Your task to perform on an android device: Empty the shopping cart on newegg.com. Add "beats solo 3" to the cart on newegg.com Image 0: 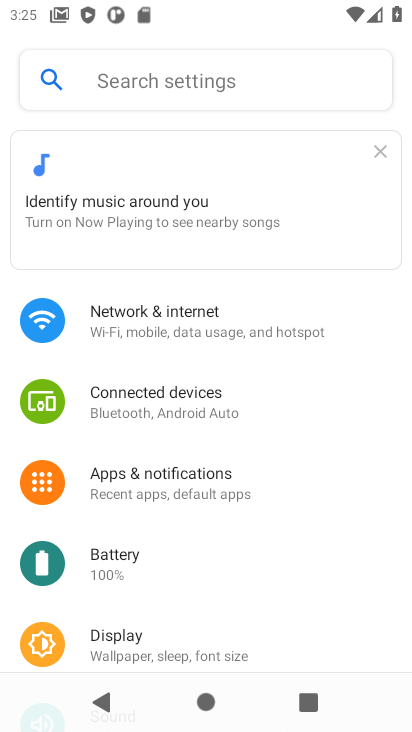
Step 0: press home button
Your task to perform on an android device: Empty the shopping cart on newegg.com. Add "beats solo 3" to the cart on newegg.com Image 1: 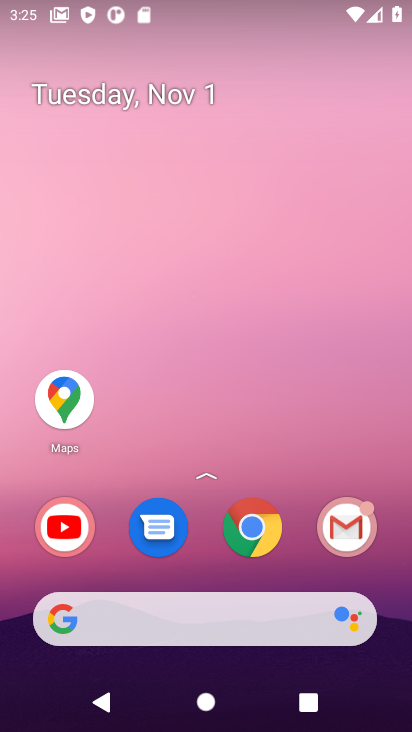
Step 1: click (202, 615)
Your task to perform on an android device: Empty the shopping cart on newegg.com. Add "beats solo 3" to the cart on newegg.com Image 2: 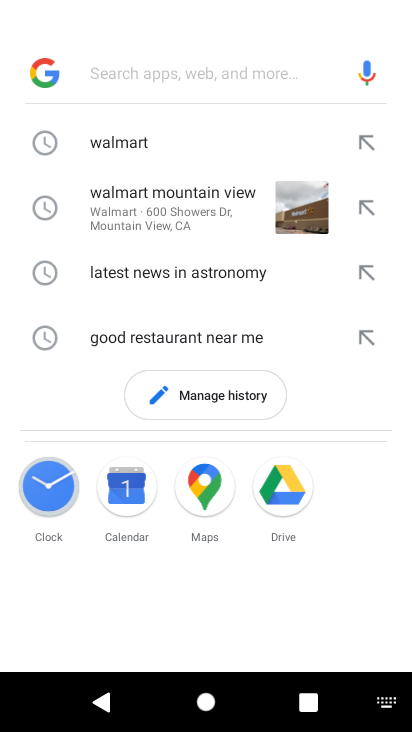
Step 2: type "newegg.com"
Your task to perform on an android device: Empty the shopping cart on newegg.com. Add "beats solo 3" to the cart on newegg.com Image 3: 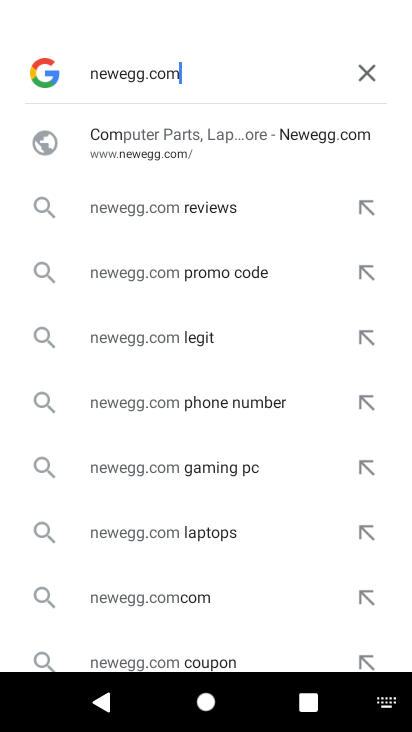
Step 3: click (215, 133)
Your task to perform on an android device: Empty the shopping cart on newegg.com. Add "beats solo 3" to the cart on newegg.com Image 4: 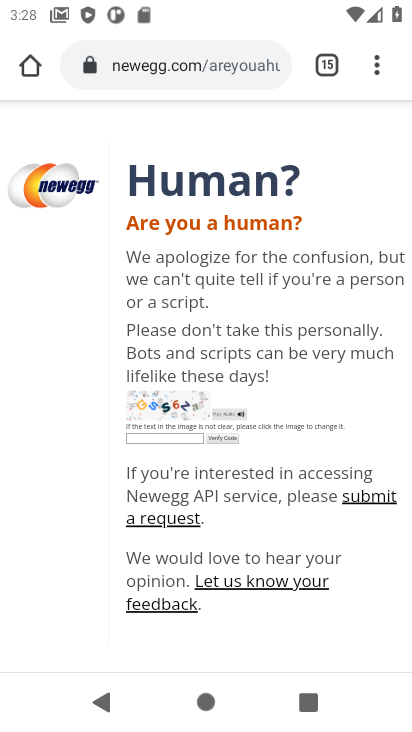
Step 4: click (180, 439)
Your task to perform on an android device: Empty the shopping cart on newegg.com. Add "beats solo 3" to the cart on newegg.com Image 5: 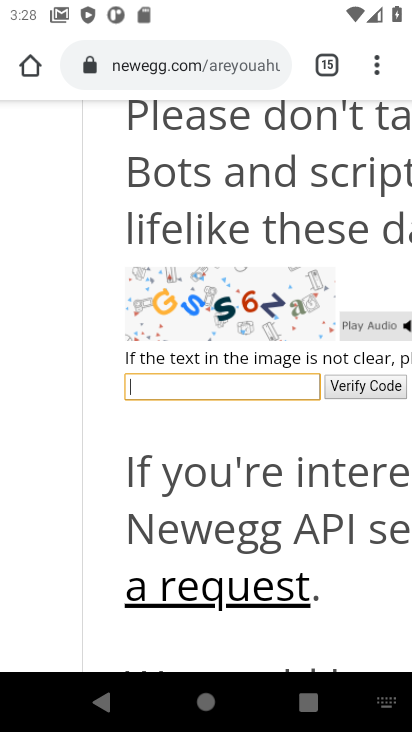
Step 5: drag from (295, 275) to (231, 341)
Your task to perform on an android device: Empty the shopping cart on newegg.com. Add "beats solo 3" to the cart on newegg.com Image 6: 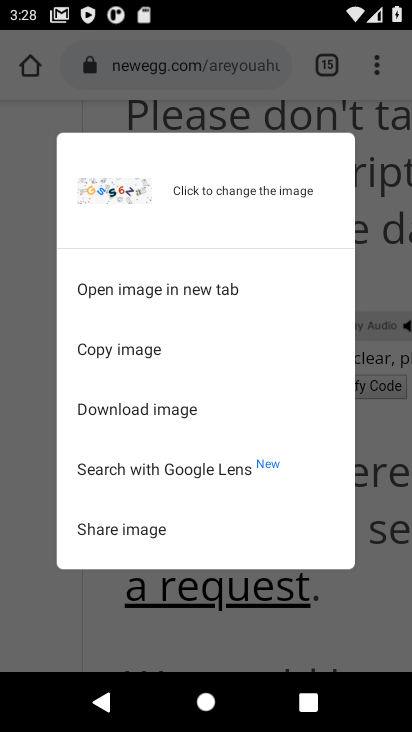
Step 6: click (377, 418)
Your task to perform on an android device: Empty the shopping cart on newegg.com. Add "beats solo 3" to the cart on newegg.com Image 7: 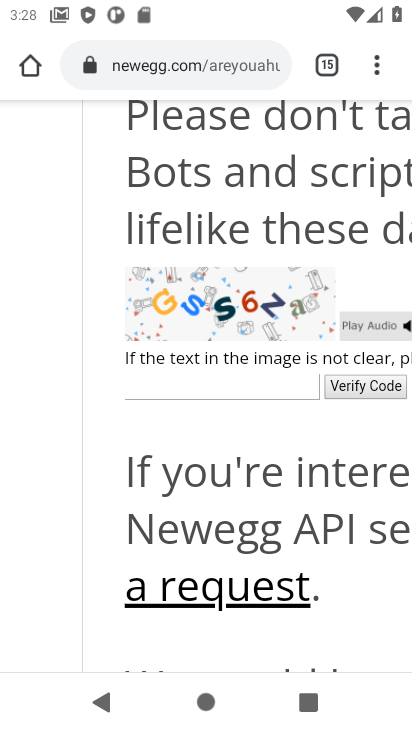
Step 7: click (262, 383)
Your task to perform on an android device: Empty the shopping cart on newegg.com. Add "beats solo 3" to the cart on newegg.com Image 8: 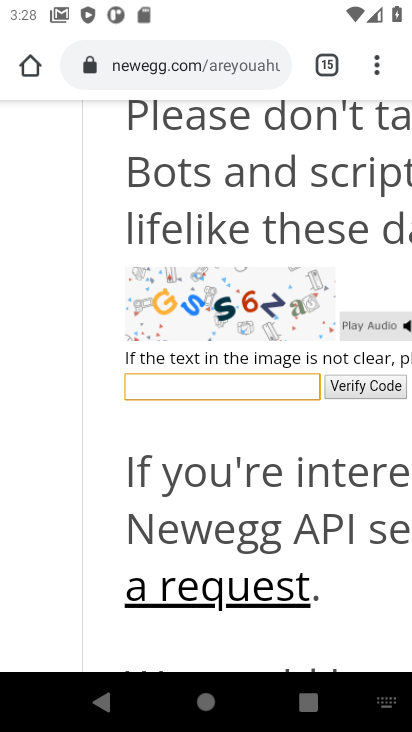
Step 8: type "GSS6"
Your task to perform on an android device: Empty the shopping cart on newegg.com. Add "beats solo 3" to the cart on newegg.com Image 9: 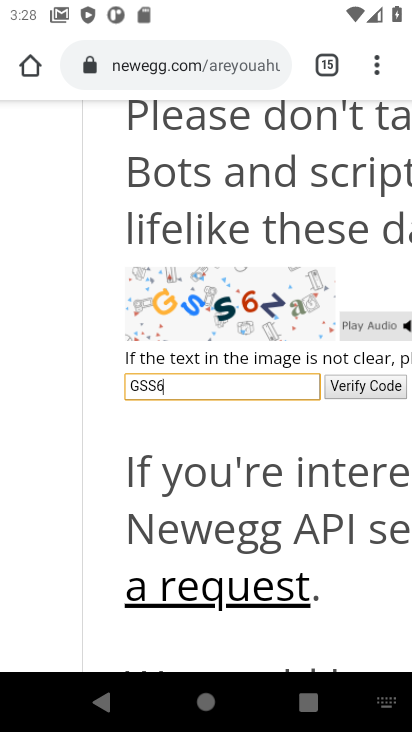
Step 9: type "Z"
Your task to perform on an android device: Empty the shopping cart on newegg.com. Add "beats solo 3" to the cart on newegg.com Image 10: 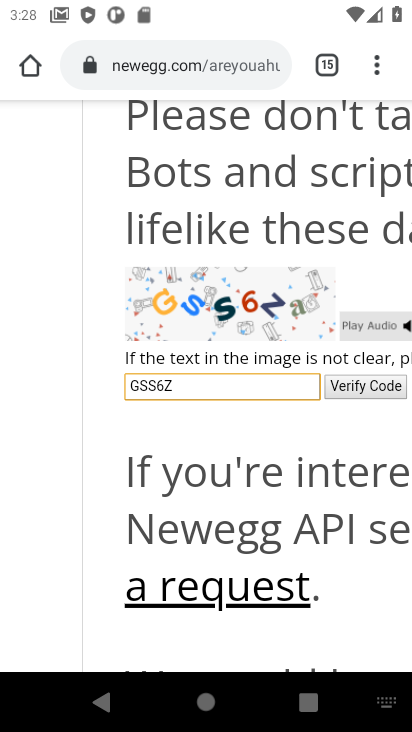
Step 10: click (373, 396)
Your task to perform on an android device: Empty the shopping cart on newegg.com. Add "beats solo 3" to the cart on newegg.com Image 11: 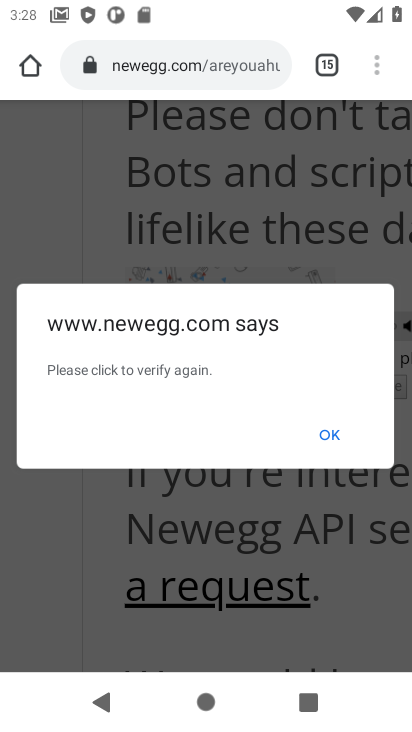
Step 11: click (327, 433)
Your task to perform on an android device: Empty the shopping cart on newegg.com. Add "beats solo 3" to the cart on newegg.com Image 12: 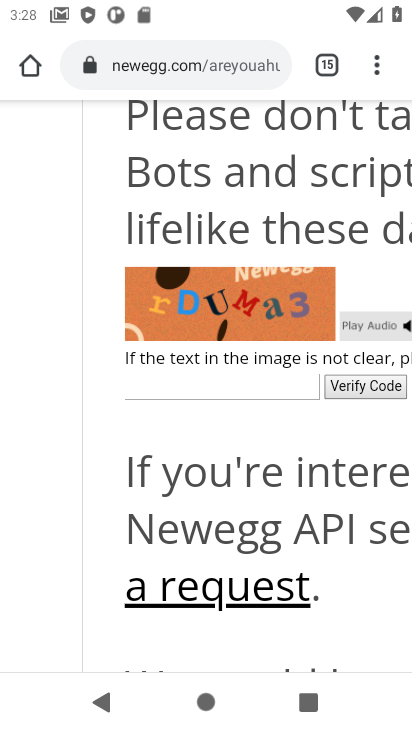
Step 12: click (186, 382)
Your task to perform on an android device: Empty the shopping cart on newegg.com. Add "beats solo 3" to the cart on newegg.com Image 13: 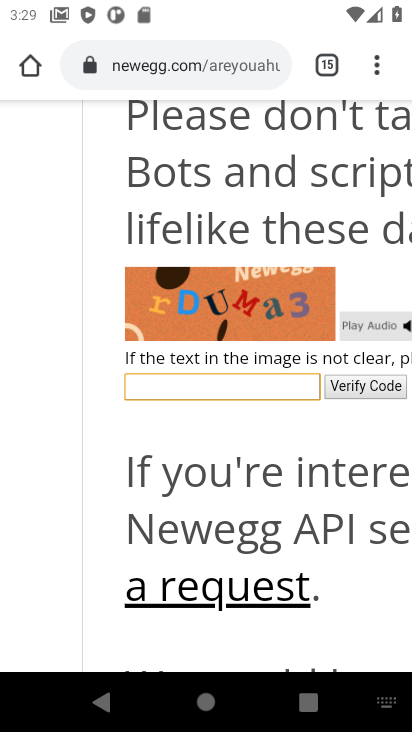
Step 13: type "rDUMa3"
Your task to perform on an android device: Empty the shopping cart on newegg.com. Add "beats solo 3" to the cart on newegg.com Image 14: 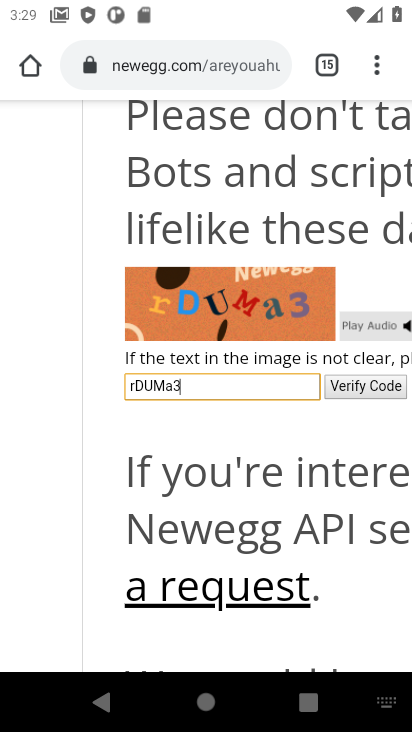
Step 14: click (352, 374)
Your task to perform on an android device: Empty the shopping cart on newegg.com. Add "beats solo 3" to the cart on newegg.com Image 15: 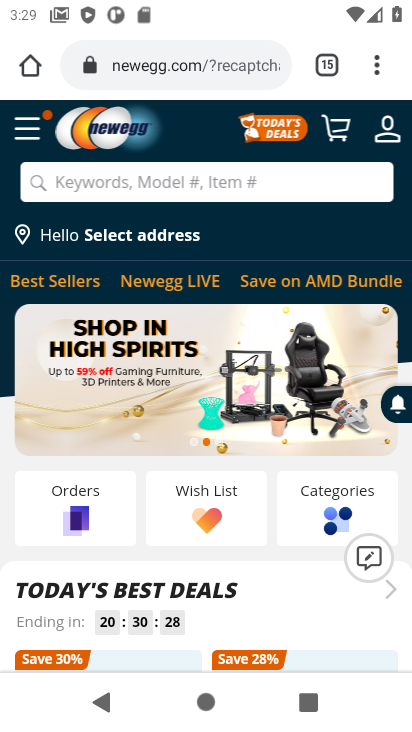
Step 15: drag from (412, 461) to (376, 539)
Your task to perform on an android device: Empty the shopping cart on newegg.com. Add "beats solo 3" to the cart on newegg.com Image 16: 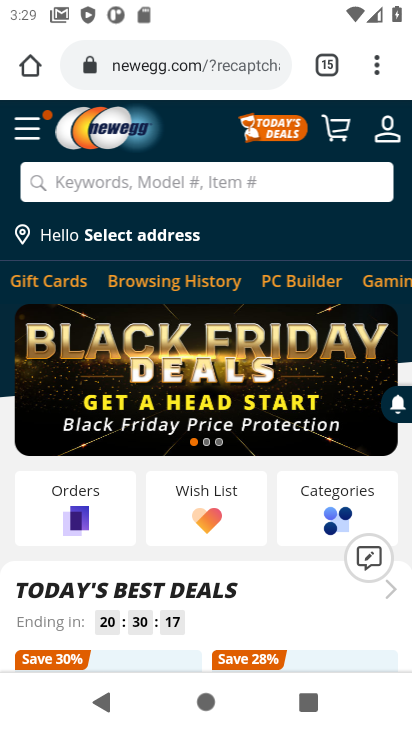
Step 16: click (229, 192)
Your task to perform on an android device: Empty the shopping cart on newegg.com. Add "beats solo 3" to the cart on newegg.com Image 17: 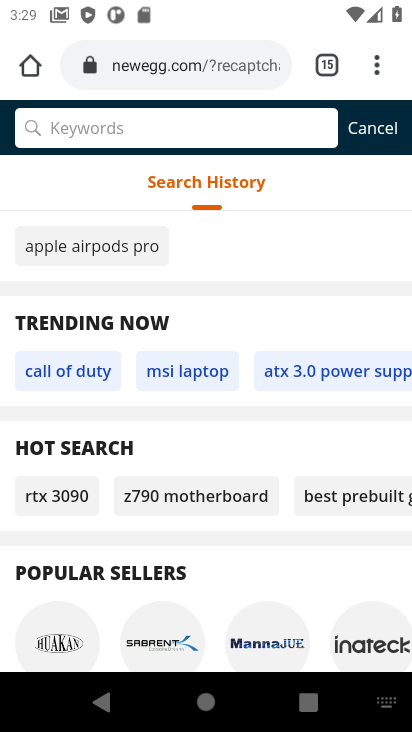
Step 17: type "beats solo 3"
Your task to perform on an android device: Empty the shopping cart on newegg.com. Add "beats solo 3" to the cart on newegg.com Image 18: 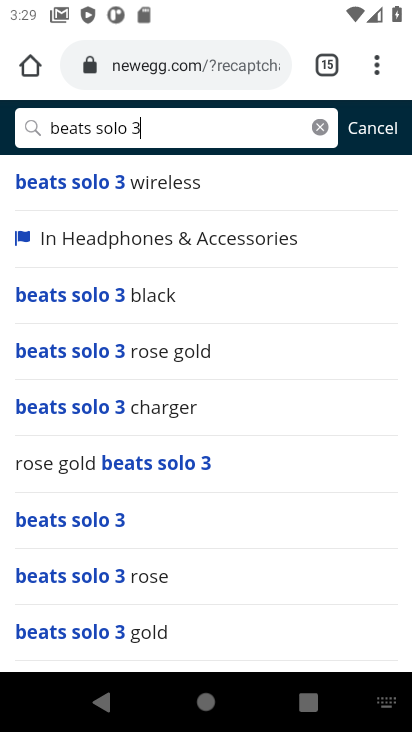
Step 18: click (88, 173)
Your task to perform on an android device: Empty the shopping cart on newegg.com. Add "beats solo 3" to the cart on newegg.com Image 19: 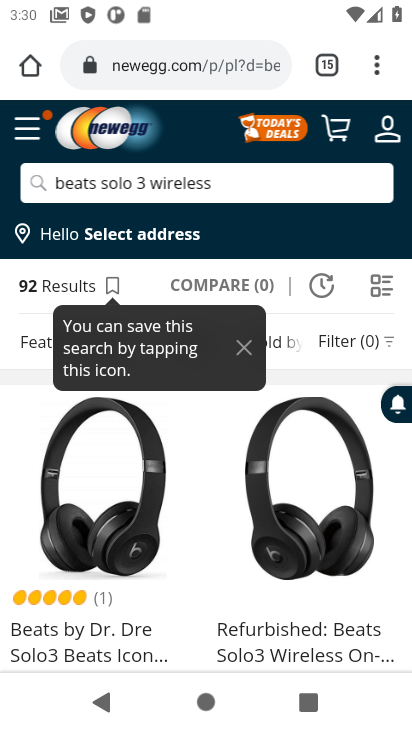
Step 19: click (51, 583)
Your task to perform on an android device: Empty the shopping cart on newegg.com. Add "beats solo 3" to the cart on newegg.com Image 20: 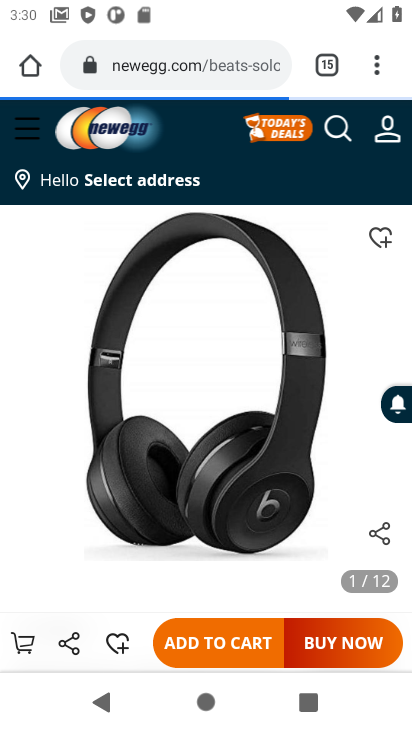
Step 20: click (186, 645)
Your task to perform on an android device: Empty the shopping cart on newegg.com. Add "beats solo 3" to the cart on newegg.com Image 21: 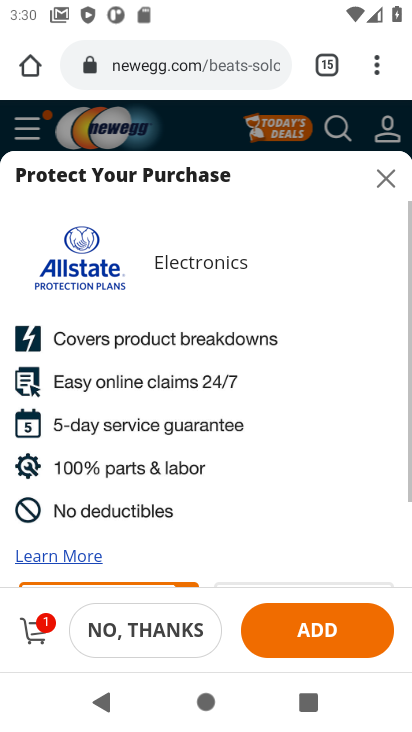
Step 21: click (393, 172)
Your task to perform on an android device: Empty the shopping cart on newegg.com. Add "beats solo 3" to the cart on newegg.com Image 22: 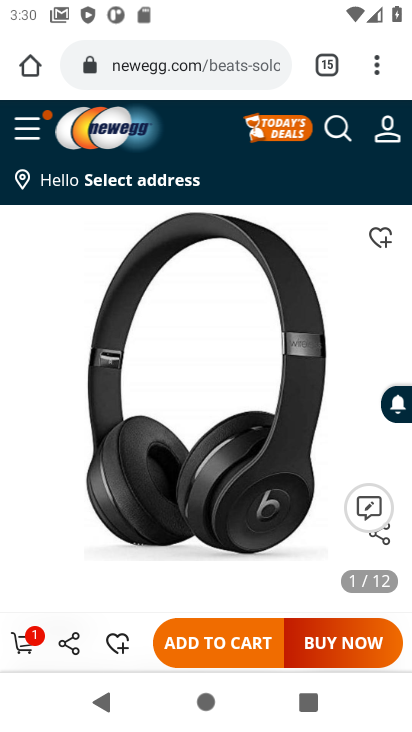
Step 22: task complete